Your task to perform on an android device: Check the weather Image 0: 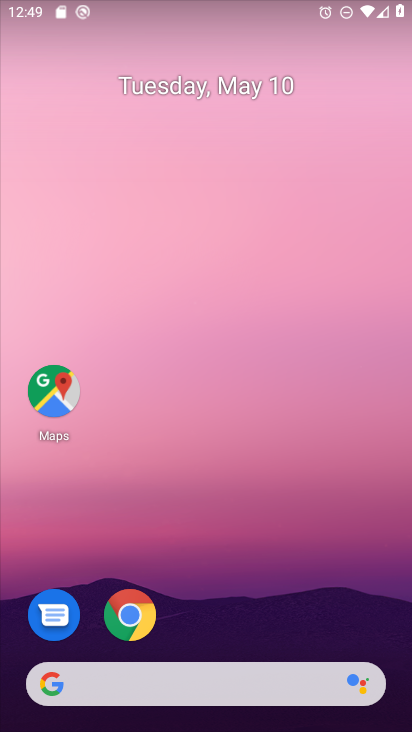
Step 0: drag from (242, 692) to (261, 304)
Your task to perform on an android device: Check the weather Image 1: 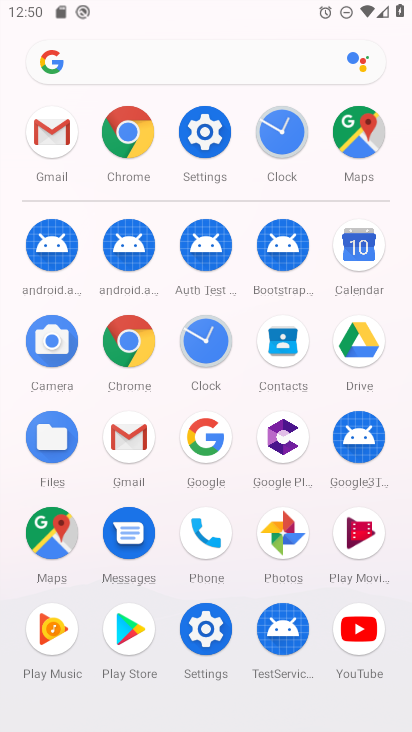
Step 1: click (156, 62)
Your task to perform on an android device: Check the weather Image 2: 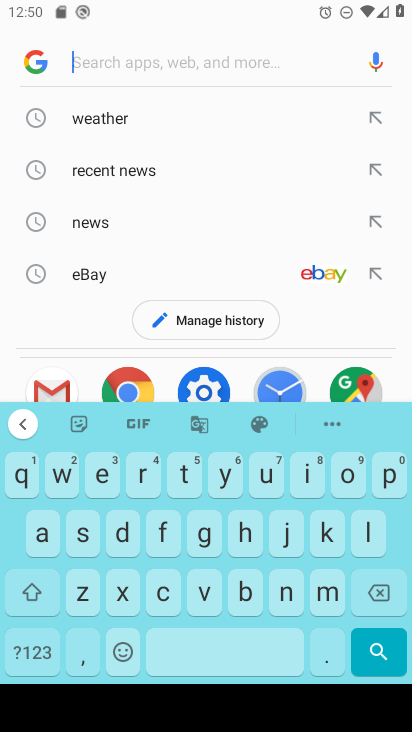
Step 2: click (109, 113)
Your task to perform on an android device: Check the weather Image 3: 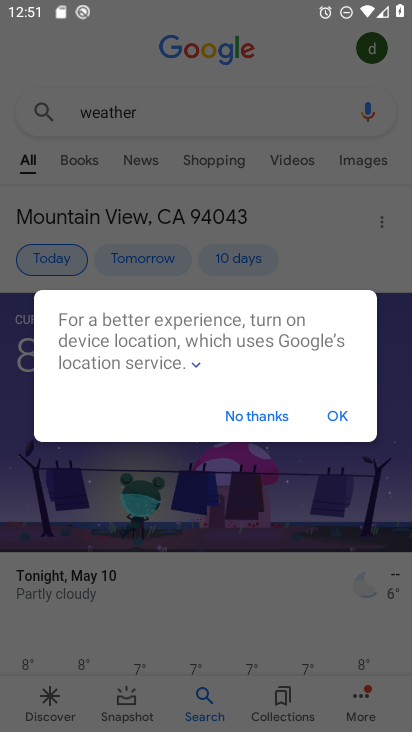
Step 3: click (238, 405)
Your task to perform on an android device: Check the weather Image 4: 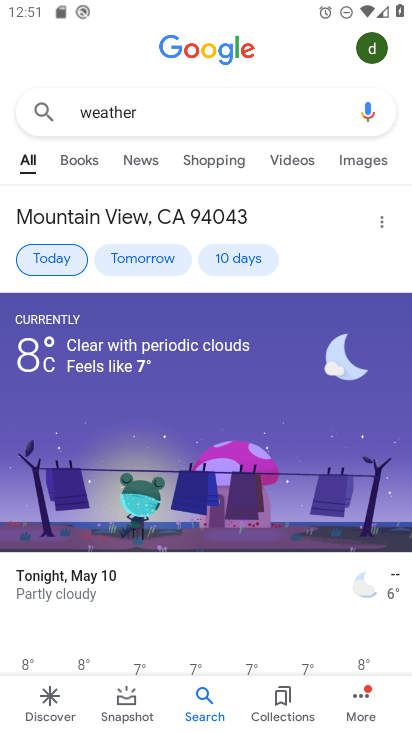
Step 4: task complete